Your task to perform on an android device: Set the phone to "Do not disturb". Image 0: 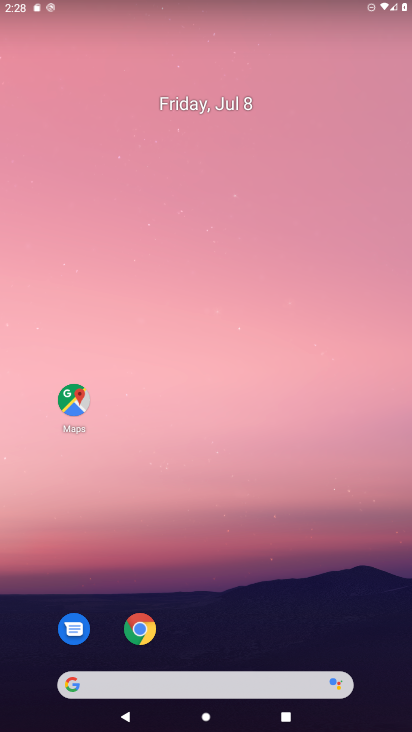
Step 0: drag from (132, 527) to (295, 160)
Your task to perform on an android device: Set the phone to "Do not disturb". Image 1: 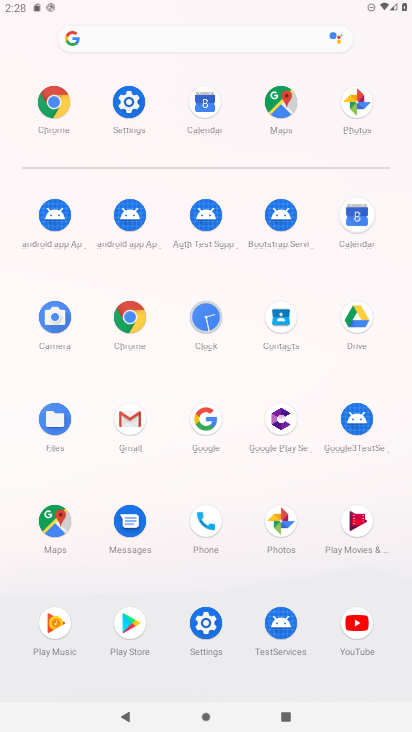
Step 1: click (213, 635)
Your task to perform on an android device: Set the phone to "Do not disturb". Image 2: 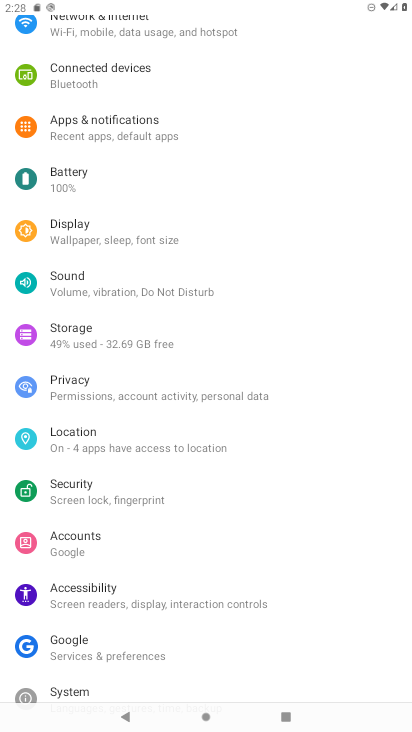
Step 2: click (146, 279)
Your task to perform on an android device: Set the phone to "Do not disturb". Image 3: 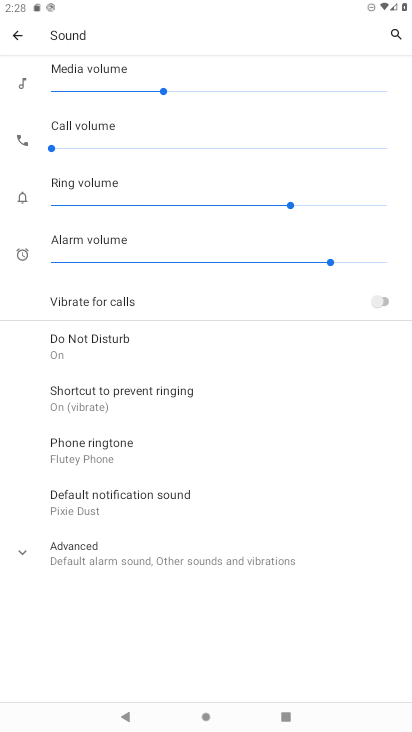
Step 3: click (119, 346)
Your task to perform on an android device: Set the phone to "Do not disturb". Image 4: 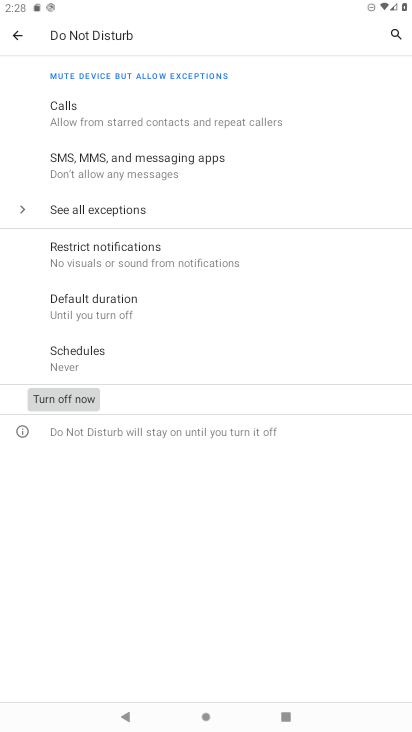
Step 4: click (69, 395)
Your task to perform on an android device: Set the phone to "Do not disturb". Image 5: 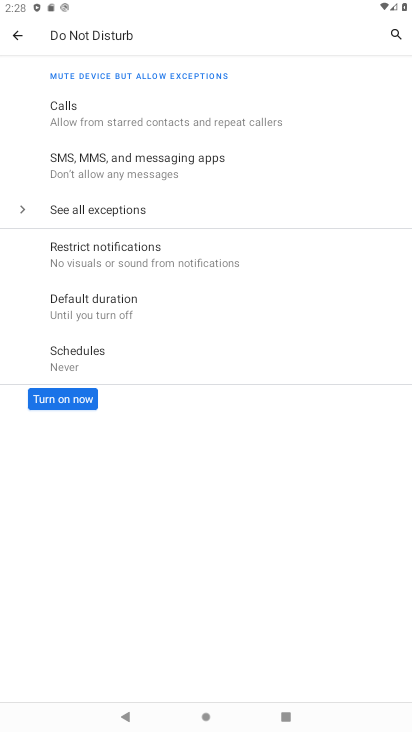
Step 5: task complete